Your task to perform on an android device: open a bookmark in the chrome app Image 0: 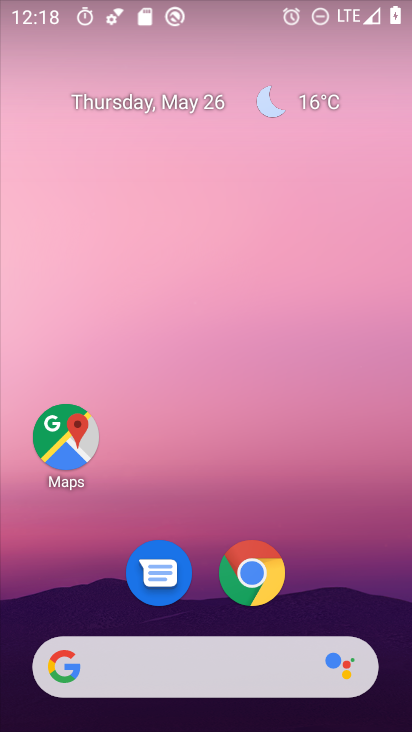
Step 0: click (253, 580)
Your task to perform on an android device: open a bookmark in the chrome app Image 1: 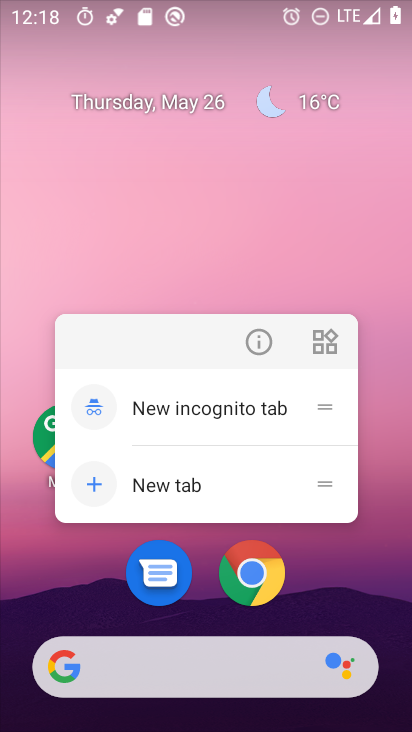
Step 1: click (253, 580)
Your task to perform on an android device: open a bookmark in the chrome app Image 2: 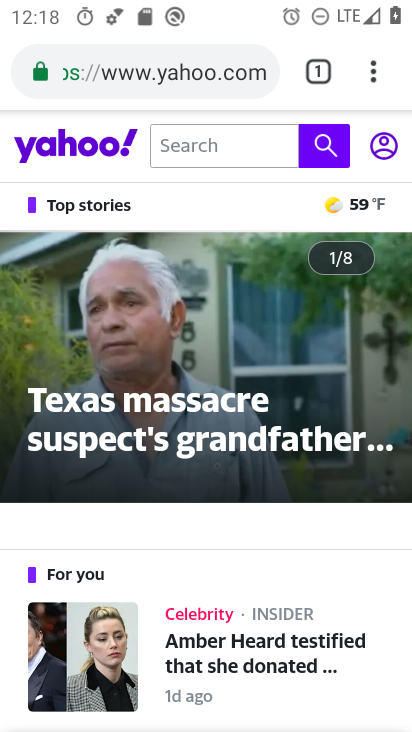
Step 2: click (373, 78)
Your task to perform on an android device: open a bookmark in the chrome app Image 3: 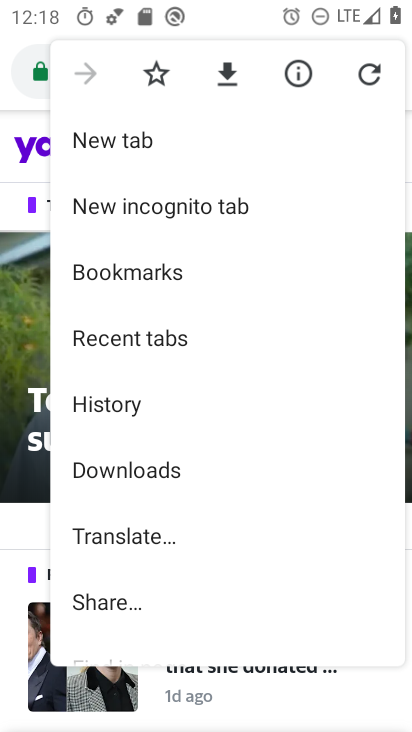
Step 3: click (91, 273)
Your task to perform on an android device: open a bookmark in the chrome app Image 4: 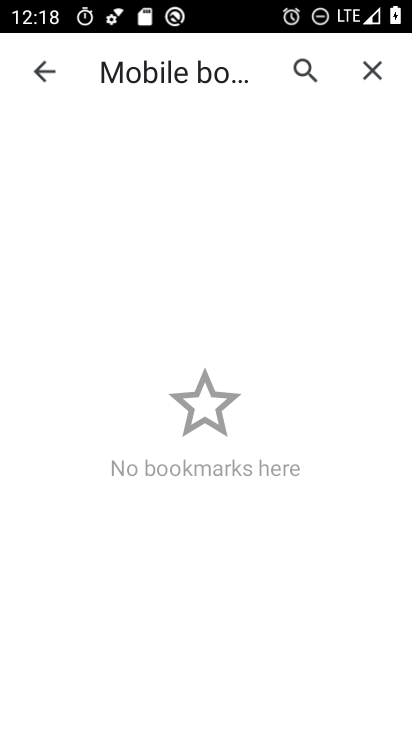
Step 4: task complete